Your task to perform on an android device: turn on airplane mode Image 0: 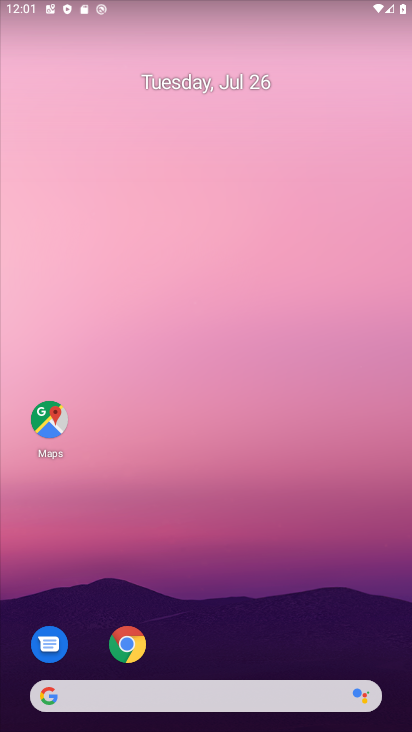
Step 0: drag from (210, 687) to (33, 106)
Your task to perform on an android device: turn on airplane mode Image 1: 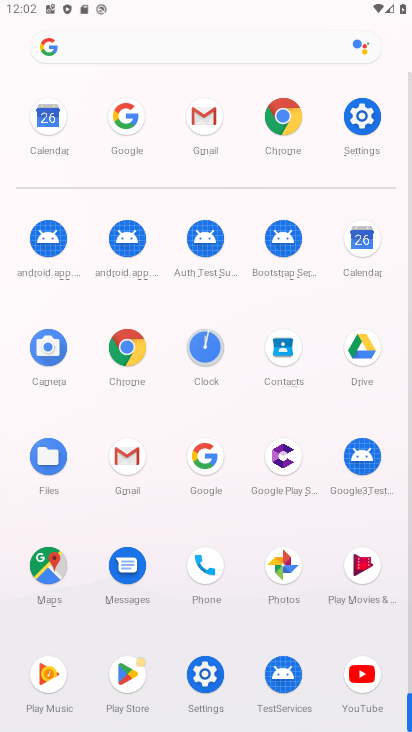
Step 1: click (369, 145)
Your task to perform on an android device: turn on airplane mode Image 2: 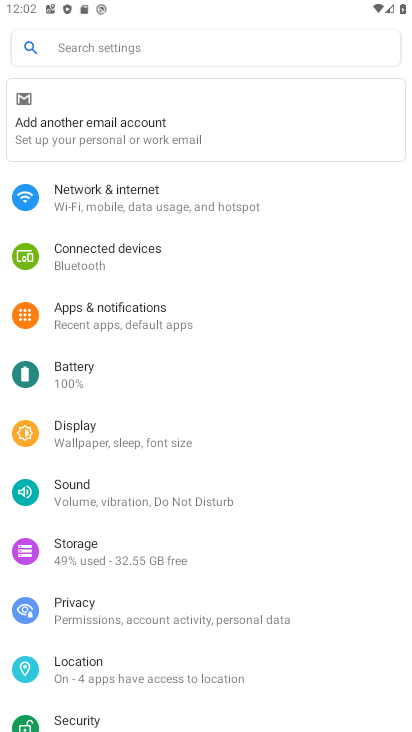
Step 2: click (126, 219)
Your task to perform on an android device: turn on airplane mode Image 3: 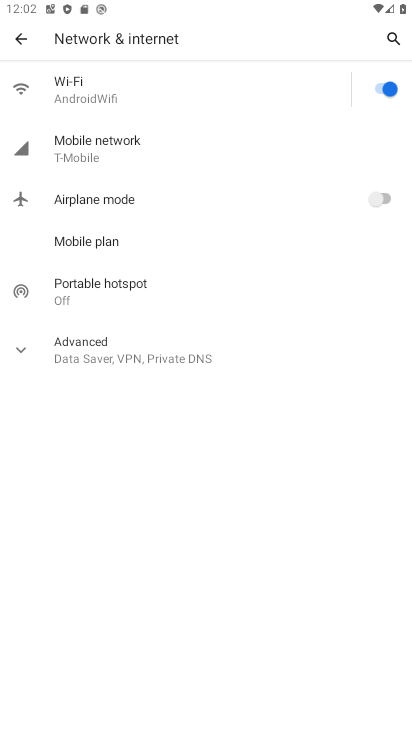
Step 3: click (384, 200)
Your task to perform on an android device: turn on airplane mode Image 4: 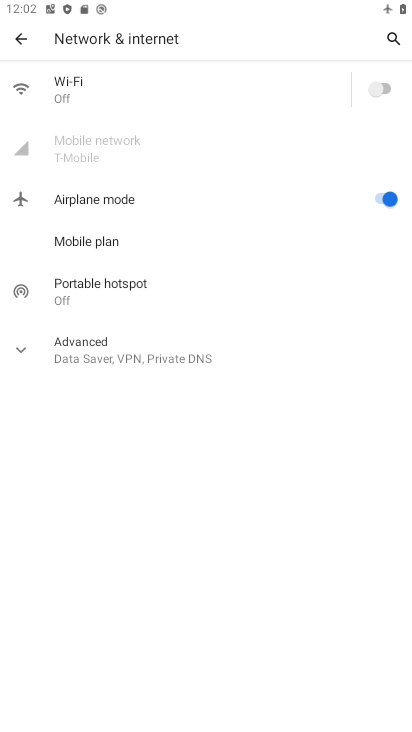
Step 4: task complete